Your task to perform on an android device: Show me productivity apps on the Play Store Image 0: 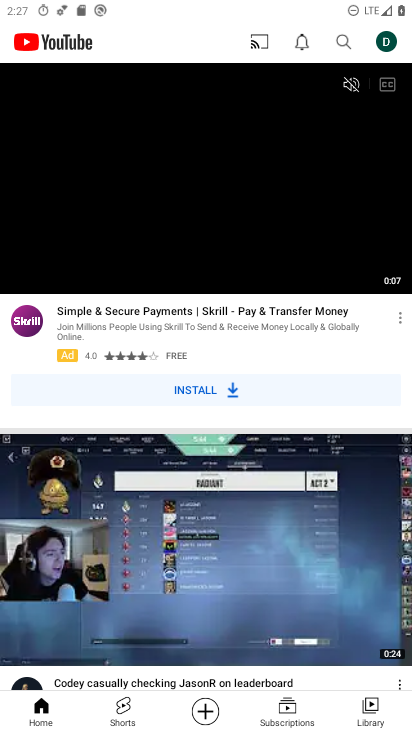
Step 0: drag from (206, 547) to (327, 165)
Your task to perform on an android device: Show me productivity apps on the Play Store Image 1: 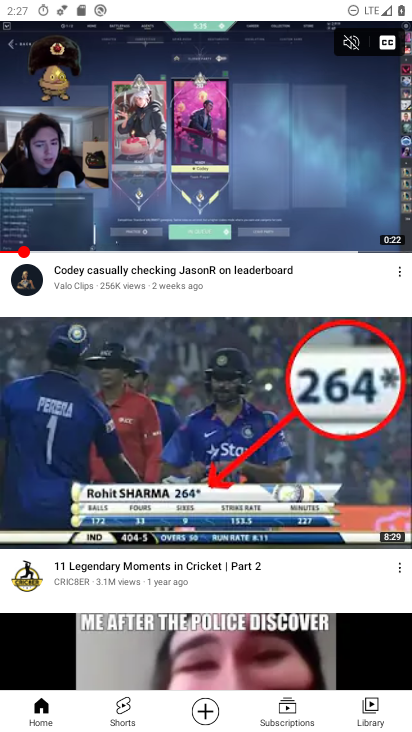
Step 1: drag from (50, 648) to (170, 400)
Your task to perform on an android device: Show me productivity apps on the Play Store Image 2: 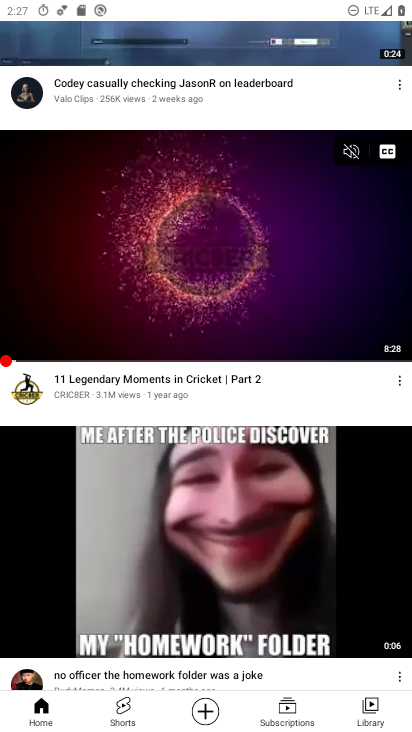
Step 2: drag from (200, 503) to (284, 241)
Your task to perform on an android device: Show me productivity apps on the Play Store Image 3: 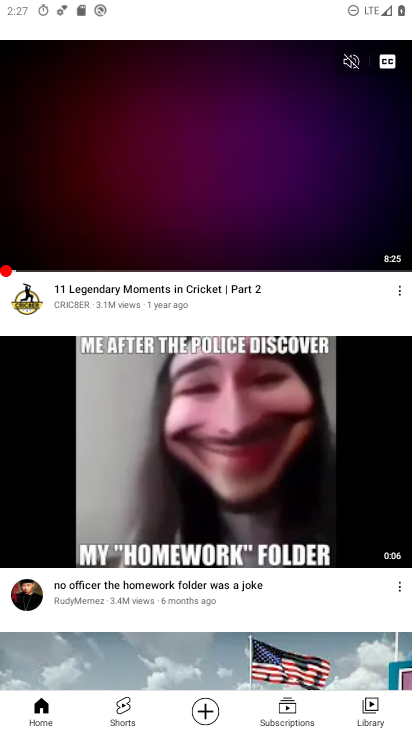
Step 3: press home button
Your task to perform on an android device: Show me productivity apps on the Play Store Image 4: 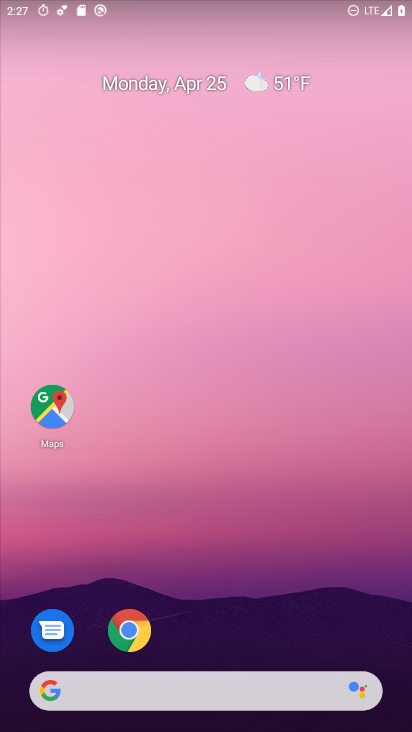
Step 4: drag from (229, 508) to (311, 75)
Your task to perform on an android device: Show me productivity apps on the Play Store Image 5: 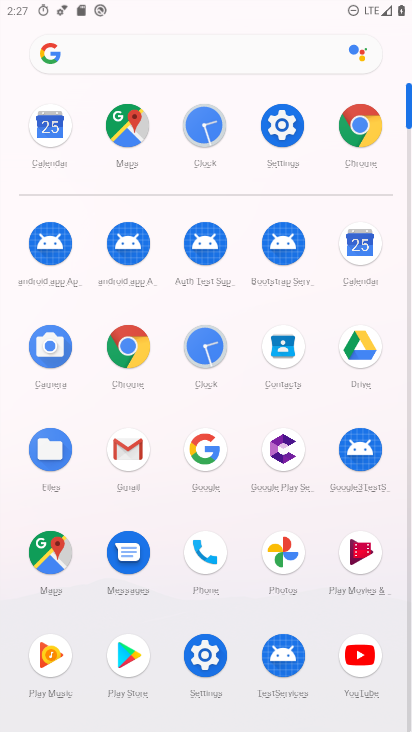
Step 5: click (123, 642)
Your task to perform on an android device: Show me productivity apps on the Play Store Image 6: 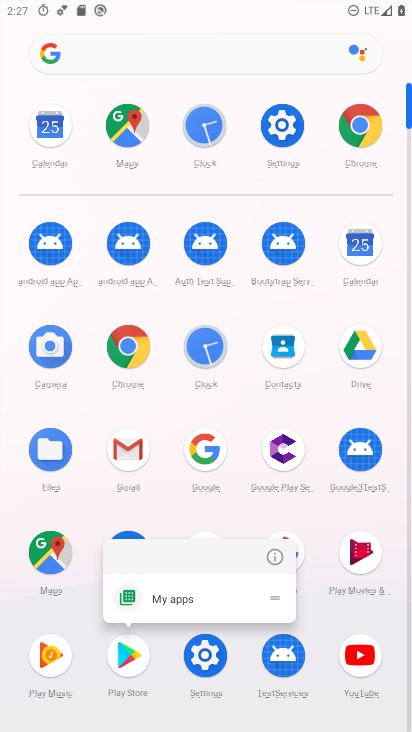
Step 6: click (277, 552)
Your task to perform on an android device: Show me productivity apps on the Play Store Image 7: 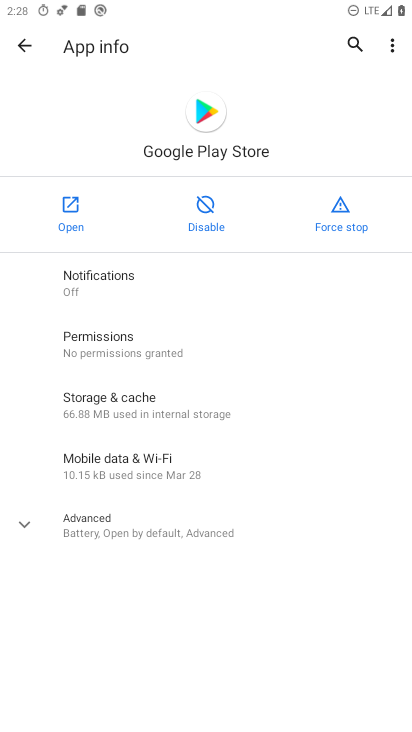
Step 7: click (16, 184)
Your task to perform on an android device: Show me productivity apps on the Play Store Image 8: 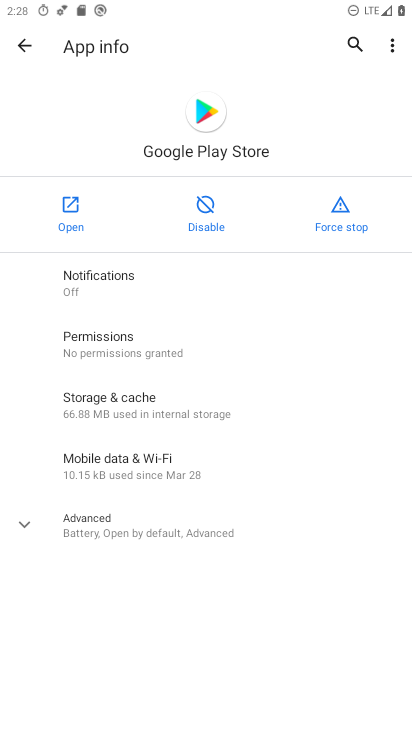
Step 8: click (63, 223)
Your task to perform on an android device: Show me productivity apps on the Play Store Image 9: 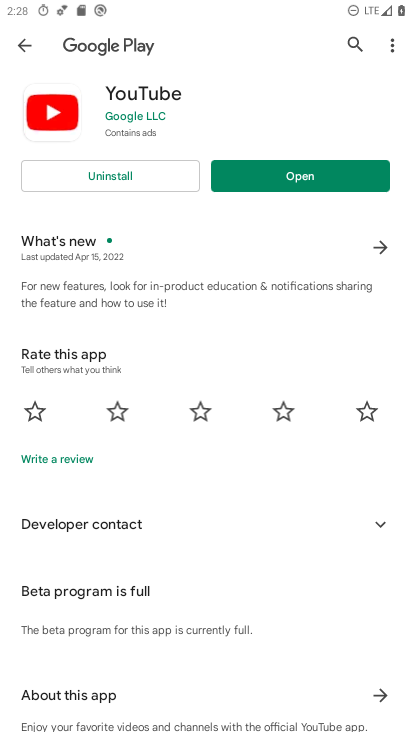
Step 9: drag from (208, 481) to (245, 171)
Your task to perform on an android device: Show me productivity apps on the Play Store Image 10: 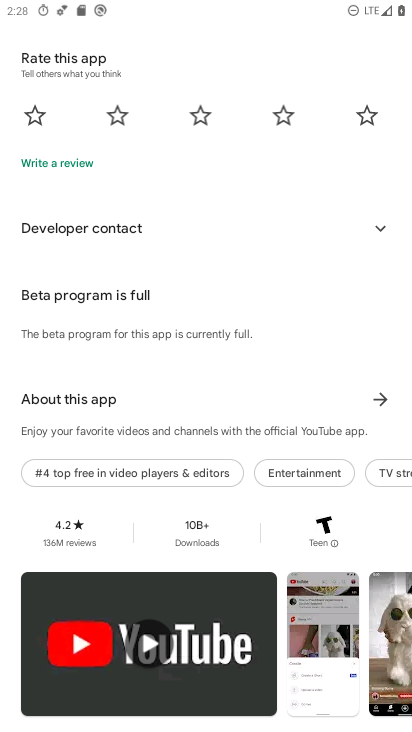
Step 10: drag from (212, 352) to (272, 728)
Your task to perform on an android device: Show me productivity apps on the Play Store Image 11: 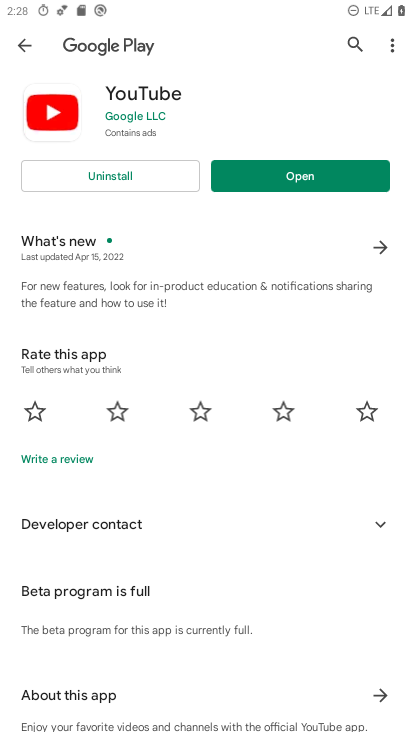
Step 11: click (21, 50)
Your task to perform on an android device: Show me productivity apps on the Play Store Image 12: 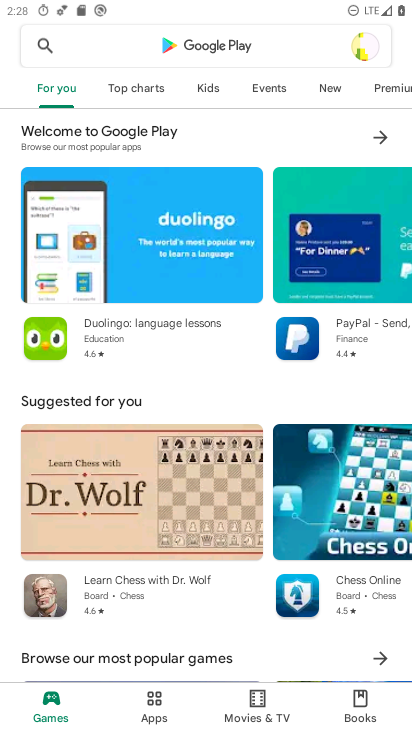
Step 12: click (353, 60)
Your task to perform on an android device: Show me productivity apps on the Play Store Image 13: 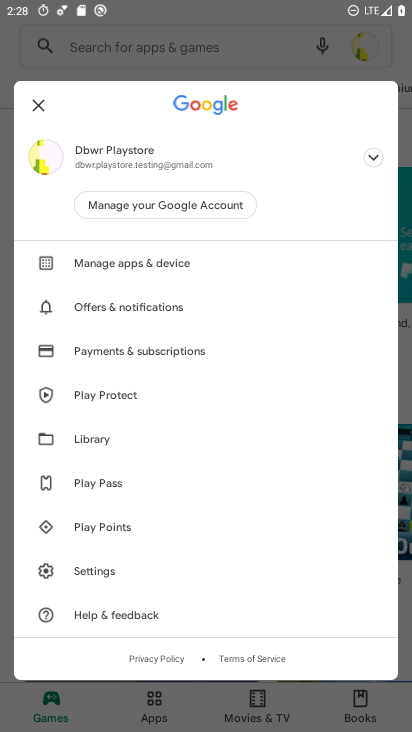
Step 13: click (146, 267)
Your task to perform on an android device: Show me productivity apps on the Play Store Image 14: 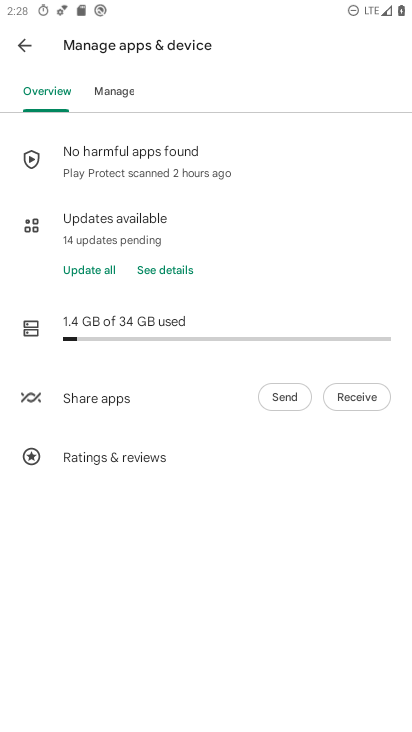
Step 14: click (121, 93)
Your task to perform on an android device: Show me productivity apps on the Play Store Image 15: 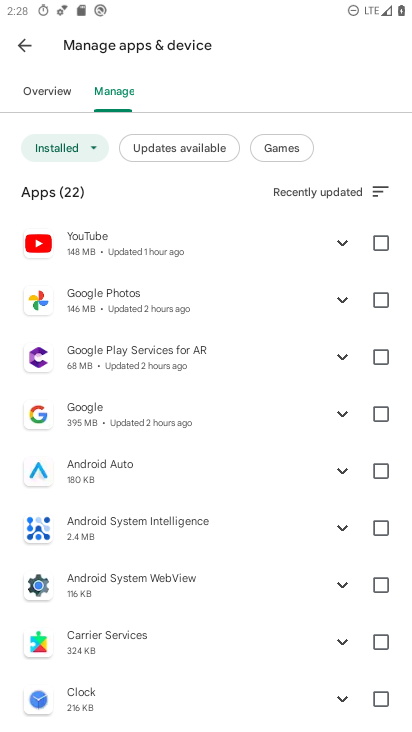
Step 15: task complete